Your task to perform on an android device: uninstall "Adobe Acrobat Reader: Edit PDF" Image 0: 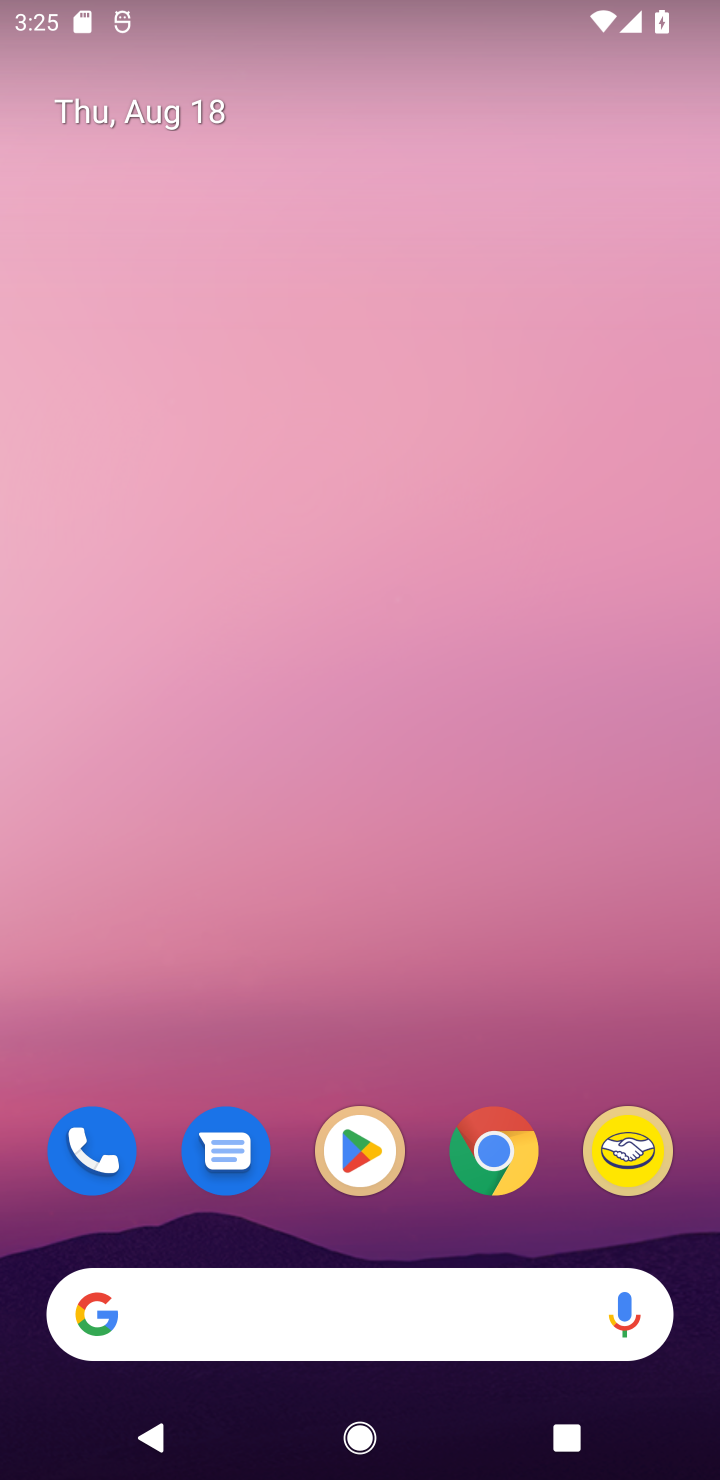
Step 0: drag from (358, 1218) to (409, 221)
Your task to perform on an android device: uninstall "Adobe Acrobat Reader: Edit PDF" Image 1: 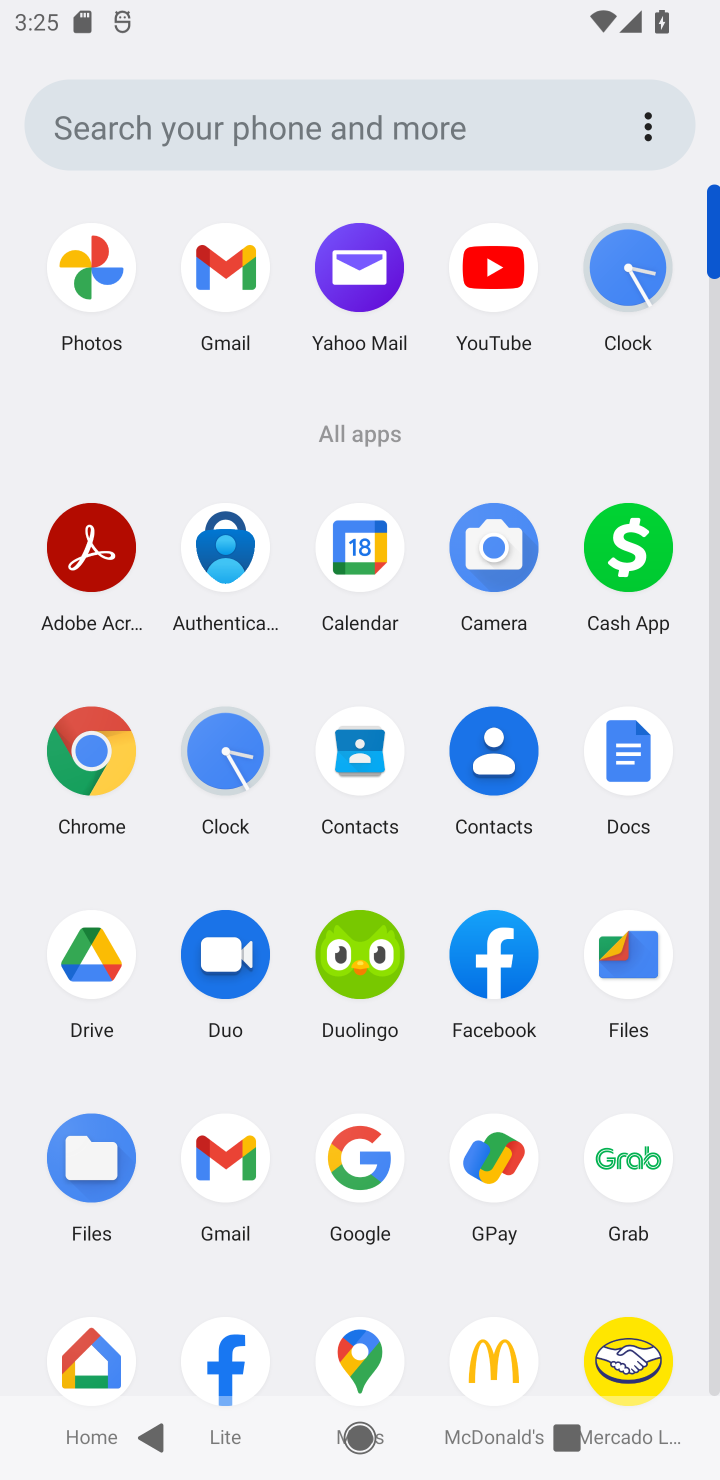
Step 1: click (67, 555)
Your task to perform on an android device: uninstall "Adobe Acrobat Reader: Edit PDF" Image 2: 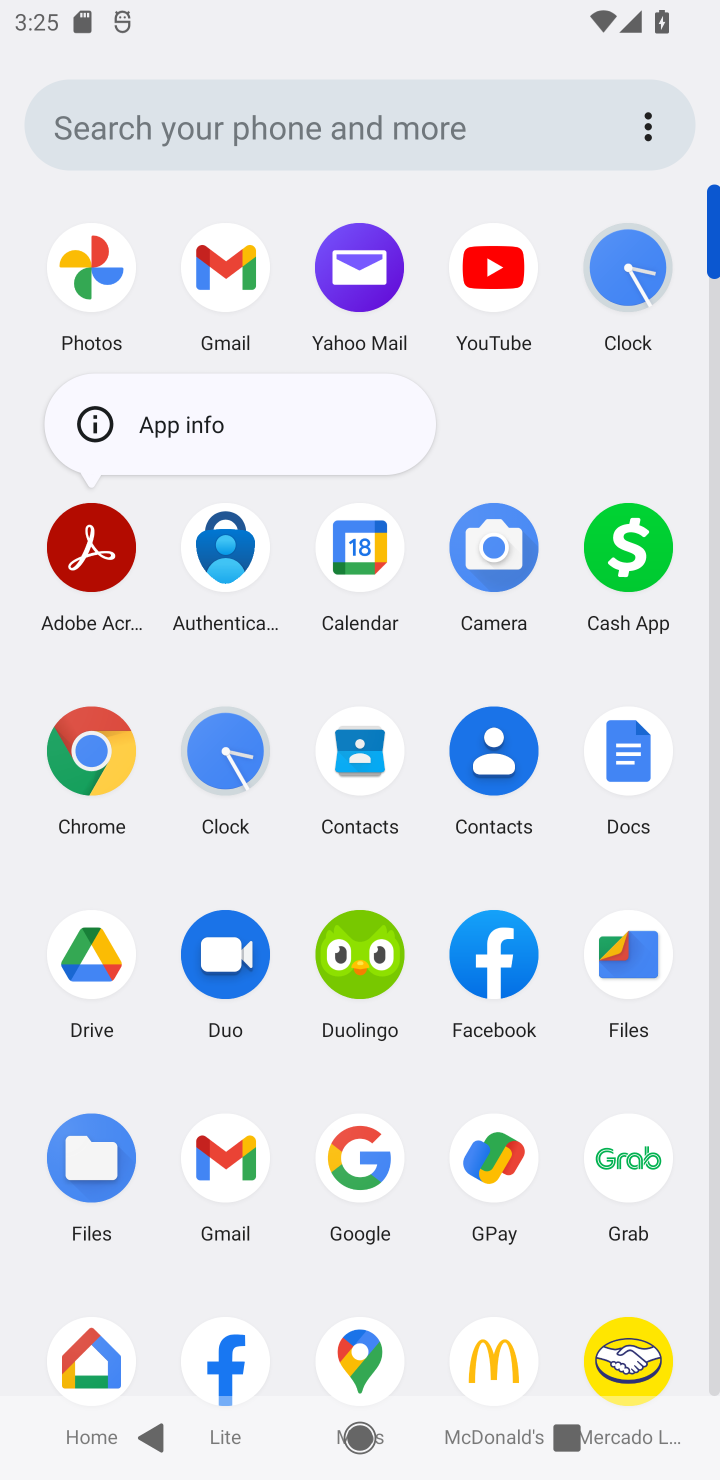
Step 2: click (129, 459)
Your task to perform on an android device: uninstall "Adobe Acrobat Reader: Edit PDF" Image 3: 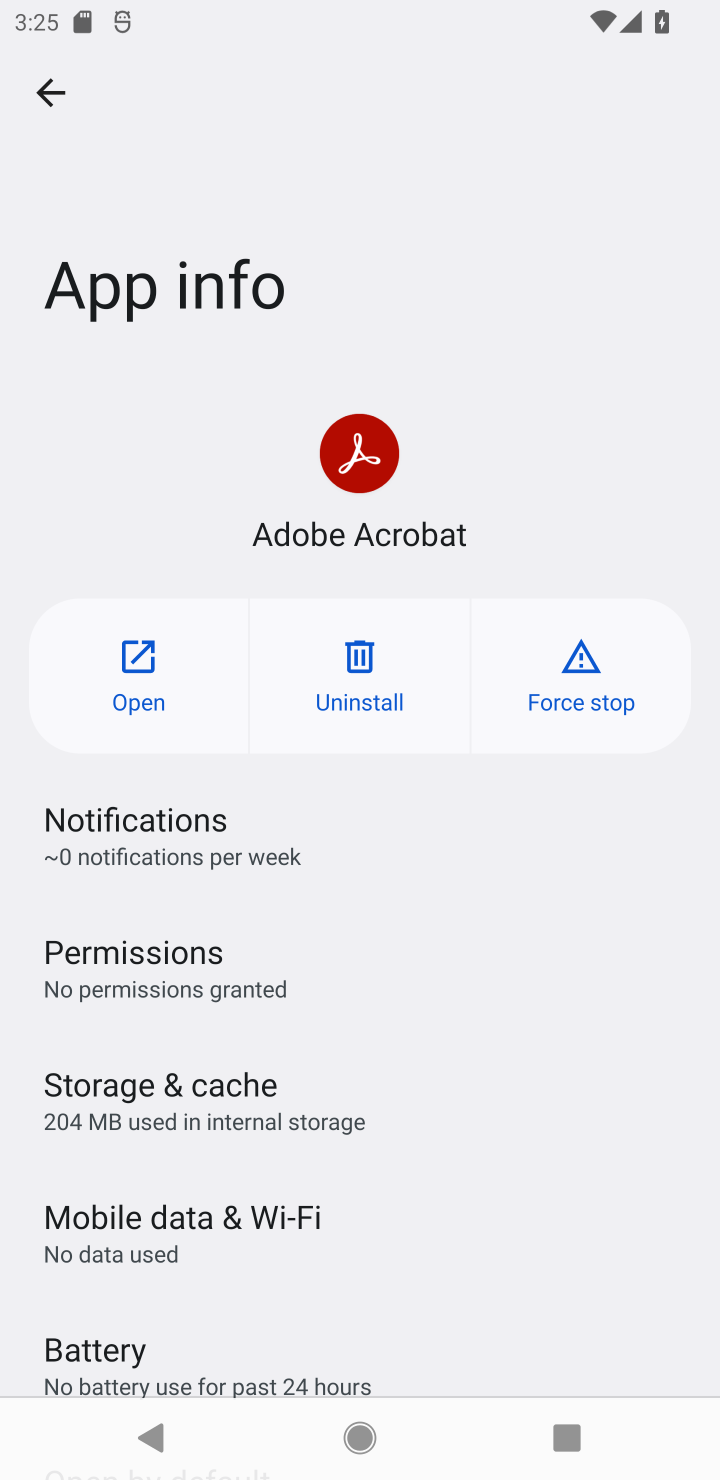
Step 3: click (325, 629)
Your task to perform on an android device: uninstall "Adobe Acrobat Reader: Edit PDF" Image 4: 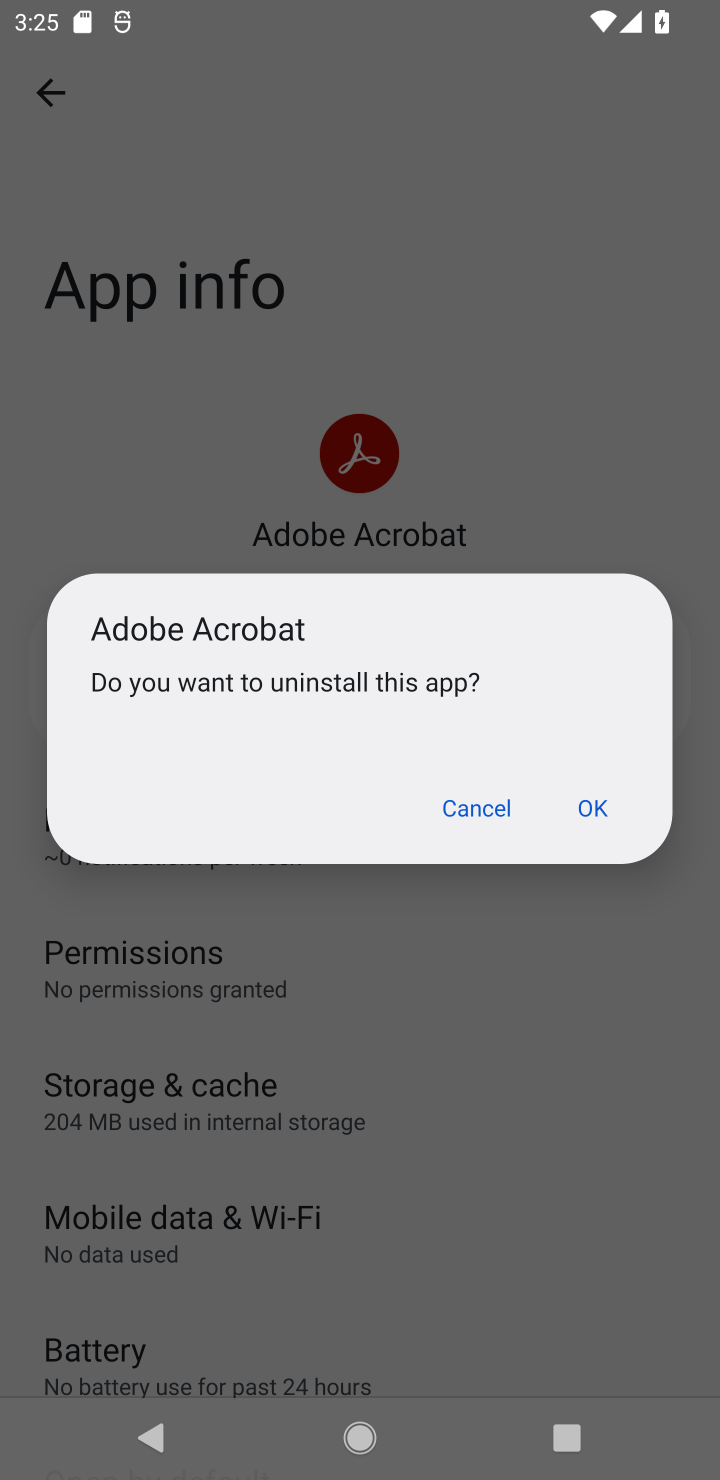
Step 4: click (611, 811)
Your task to perform on an android device: uninstall "Adobe Acrobat Reader: Edit PDF" Image 5: 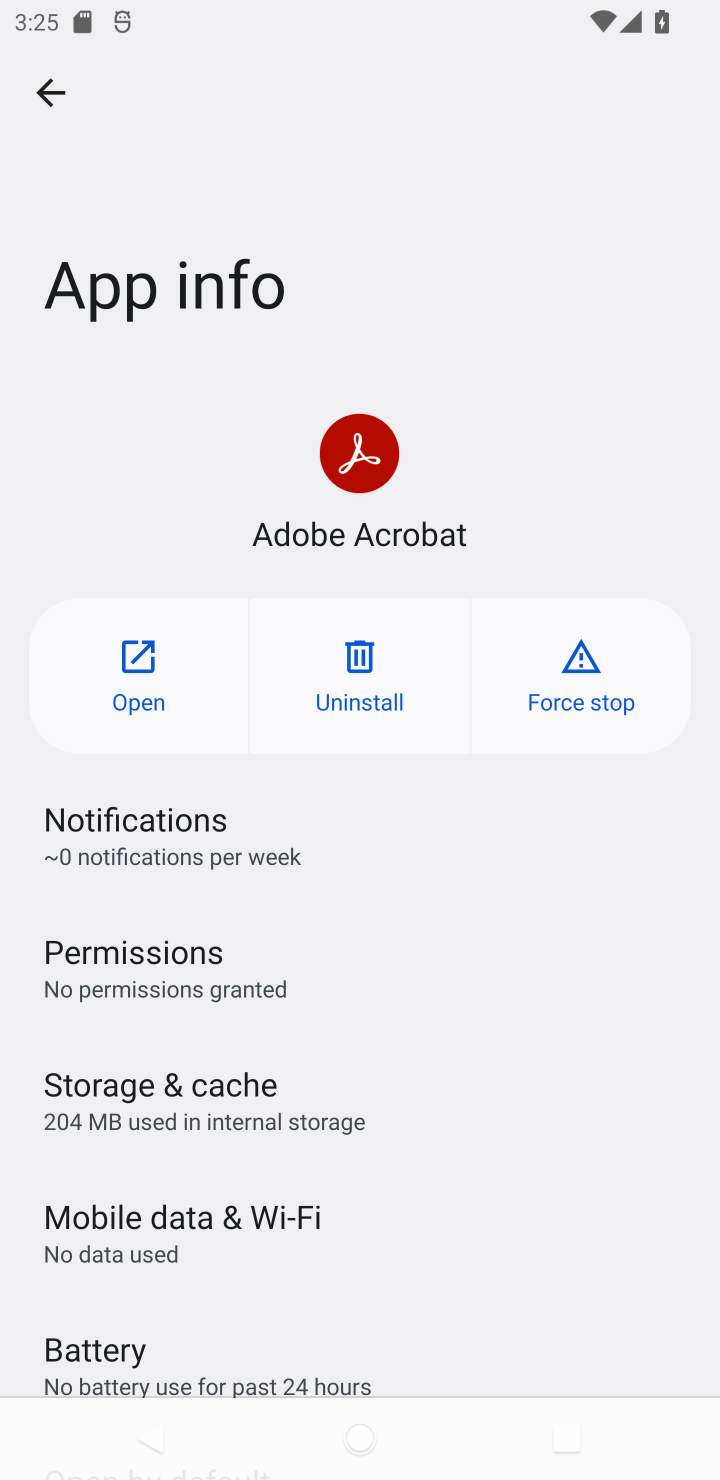
Step 5: task complete